Your task to perform on an android device: open a new tab in the chrome app Image 0: 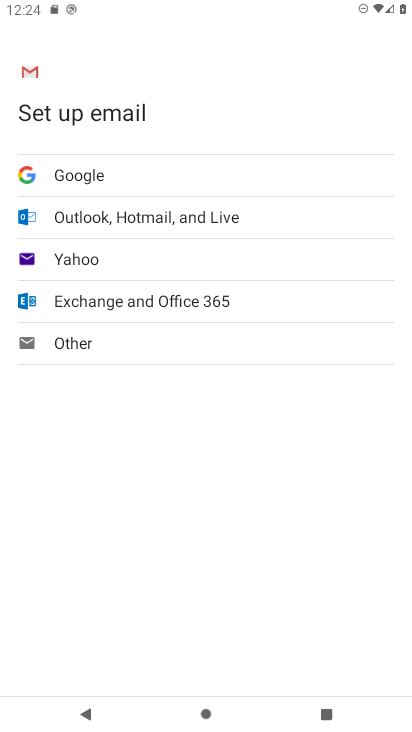
Step 0: press home button
Your task to perform on an android device: open a new tab in the chrome app Image 1: 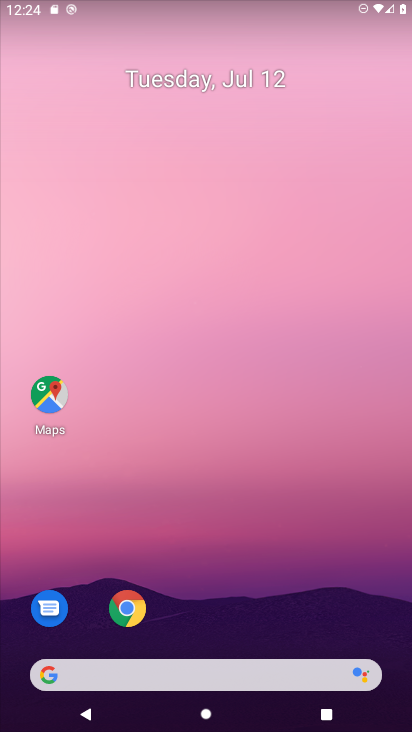
Step 1: drag from (156, 665) to (64, 38)
Your task to perform on an android device: open a new tab in the chrome app Image 2: 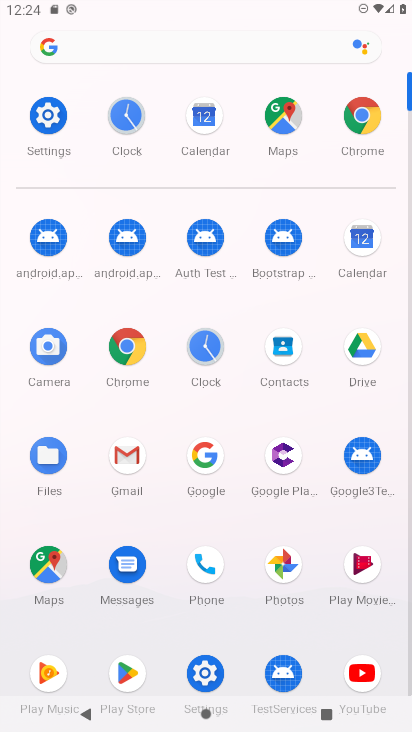
Step 2: click (369, 130)
Your task to perform on an android device: open a new tab in the chrome app Image 3: 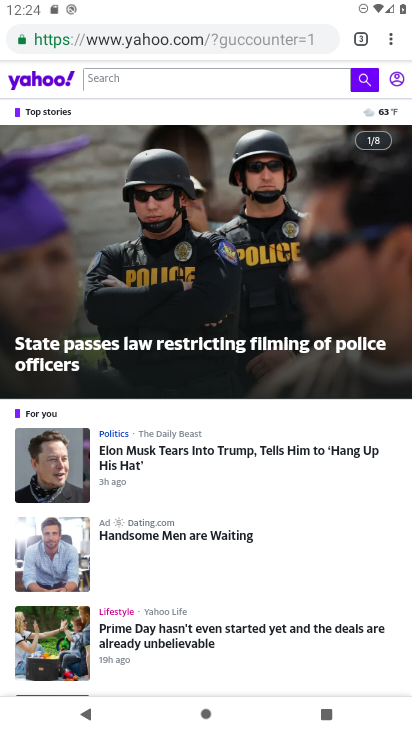
Step 3: click (363, 36)
Your task to perform on an android device: open a new tab in the chrome app Image 4: 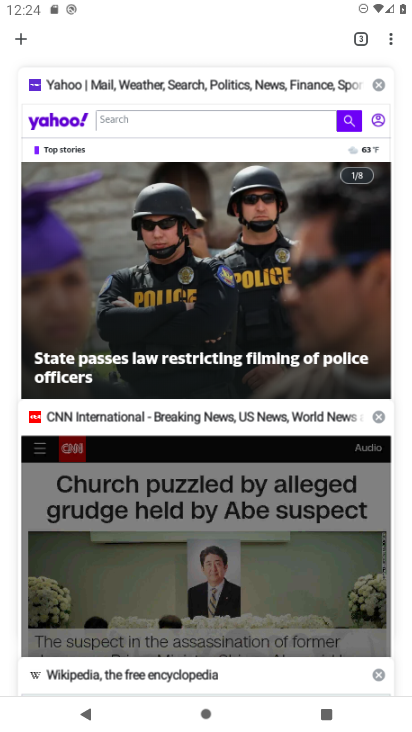
Step 4: click (26, 34)
Your task to perform on an android device: open a new tab in the chrome app Image 5: 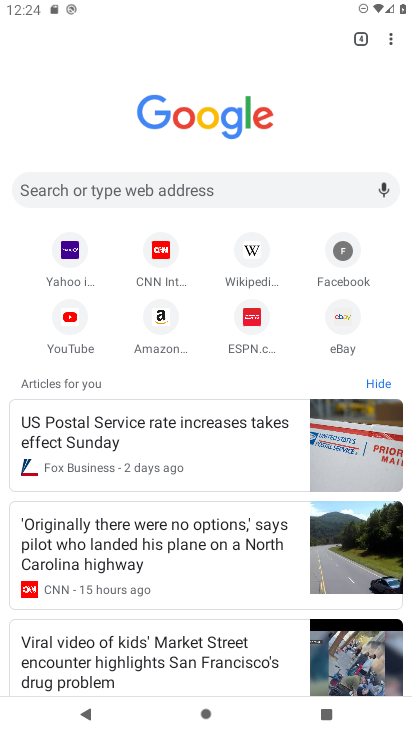
Step 5: task complete